Your task to perform on an android device: check battery use Image 0: 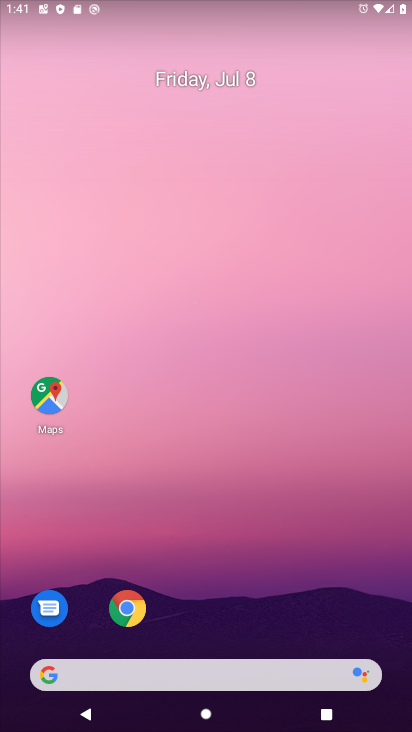
Step 0: drag from (234, 199) to (265, 600)
Your task to perform on an android device: check battery use Image 1: 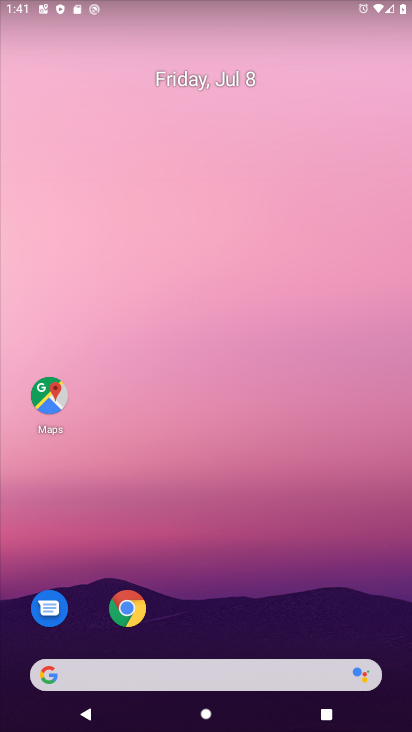
Step 1: drag from (245, 36) to (253, 659)
Your task to perform on an android device: check battery use Image 2: 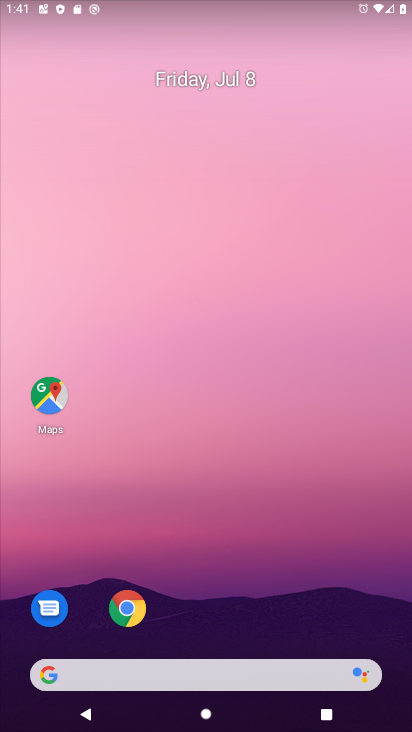
Step 2: drag from (195, 10) to (256, 551)
Your task to perform on an android device: check battery use Image 3: 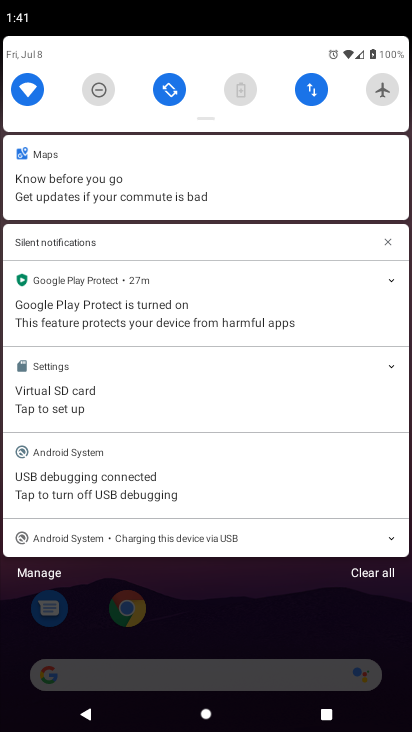
Step 3: click (244, 86)
Your task to perform on an android device: check battery use Image 4: 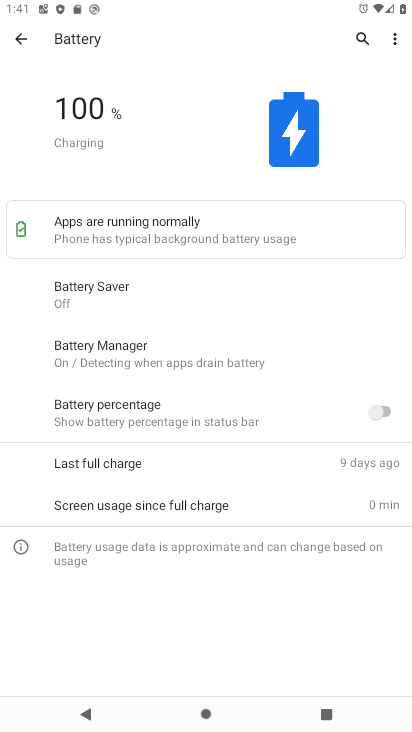
Step 4: task complete